Your task to perform on an android device: Open Android settings Image 0: 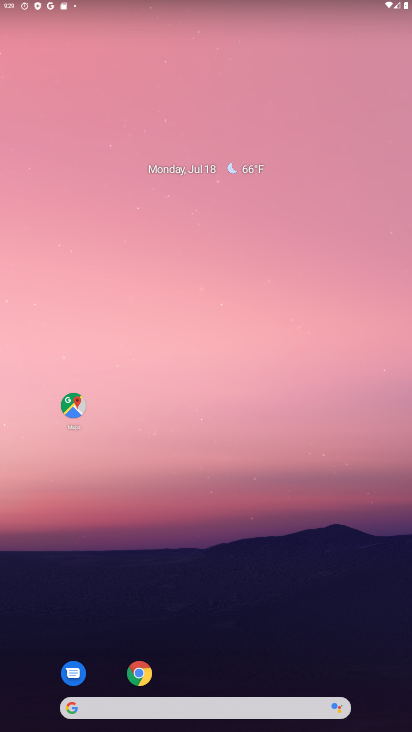
Step 0: drag from (214, 675) to (217, 146)
Your task to perform on an android device: Open Android settings Image 1: 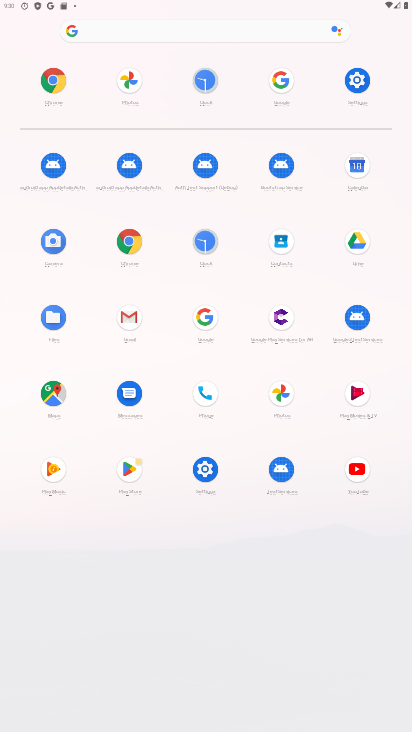
Step 1: click (365, 79)
Your task to perform on an android device: Open Android settings Image 2: 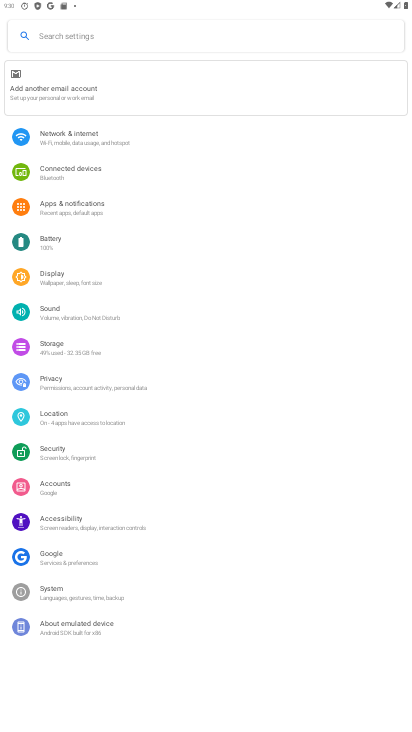
Step 2: task complete